Your task to perform on an android device: Open accessibility settings Image 0: 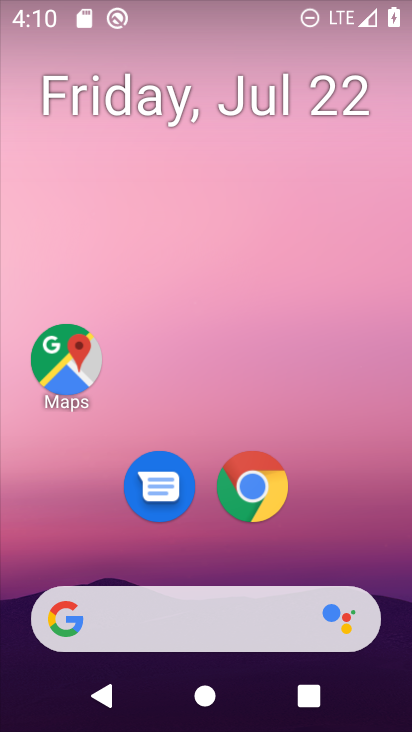
Step 0: drag from (160, 525) to (230, 6)
Your task to perform on an android device: Open accessibility settings Image 1: 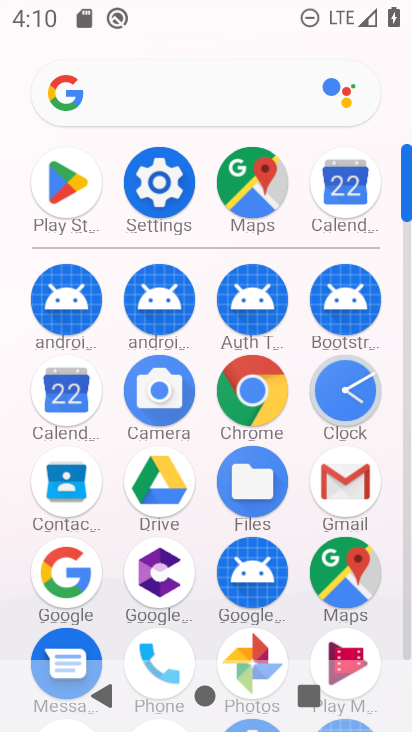
Step 1: click (157, 169)
Your task to perform on an android device: Open accessibility settings Image 2: 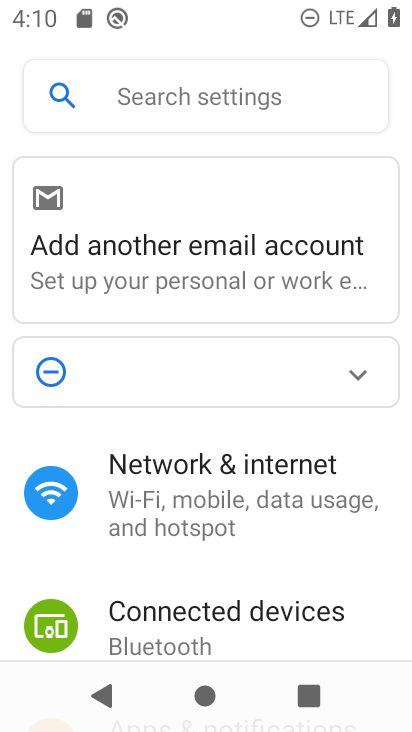
Step 2: drag from (181, 524) to (258, 20)
Your task to perform on an android device: Open accessibility settings Image 3: 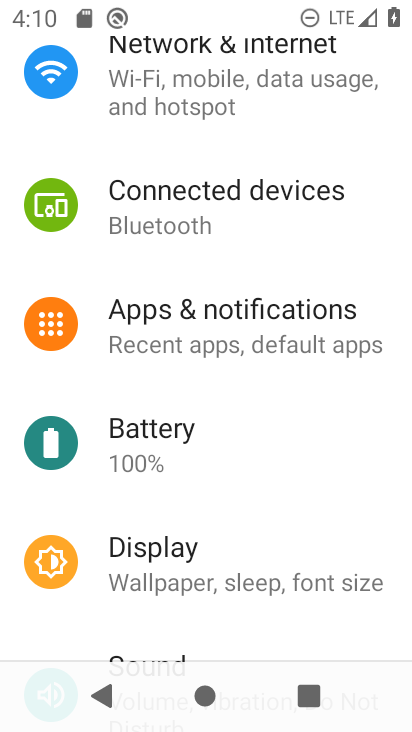
Step 3: drag from (188, 545) to (261, 0)
Your task to perform on an android device: Open accessibility settings Image 4: 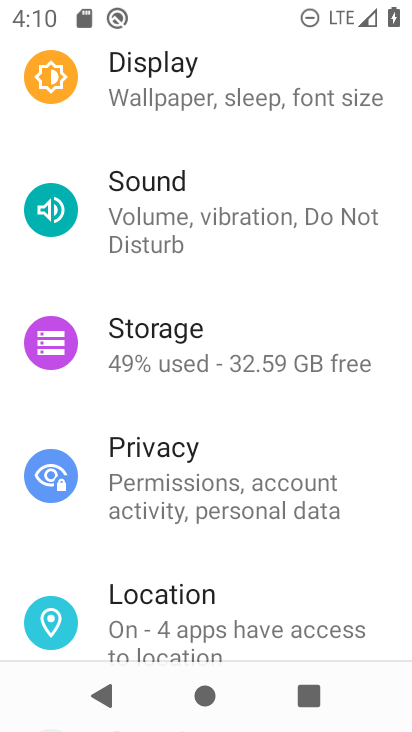
Step 4: drag from (184, 562) to (332, 3)
Your task to perform on an android device: Open accessibility settings Image 5: 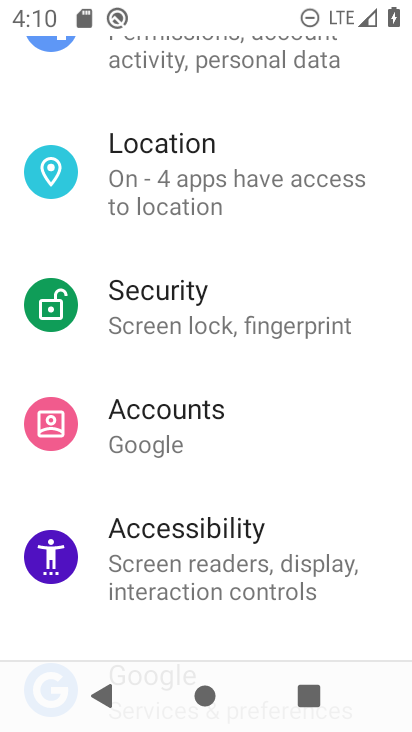
Step 5: click (199, 542)
Your task to perform on an android device: Open accessibility settings Image 6: 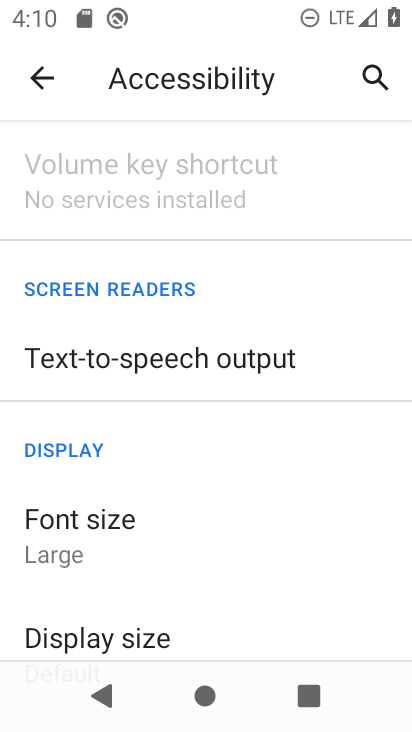
Step 6: task complete